Your task to perform on an android device: Go to notification settings Image 0: 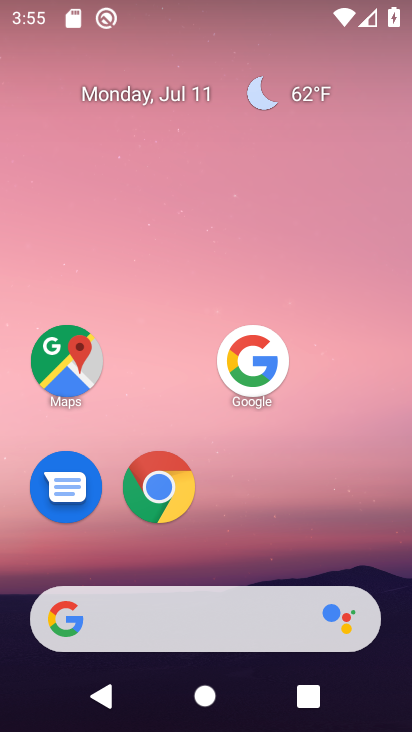
Step 0: drag from (164, 612) to (284, 80)
Your task to perform on an android device: Go to notification settings Image 1: 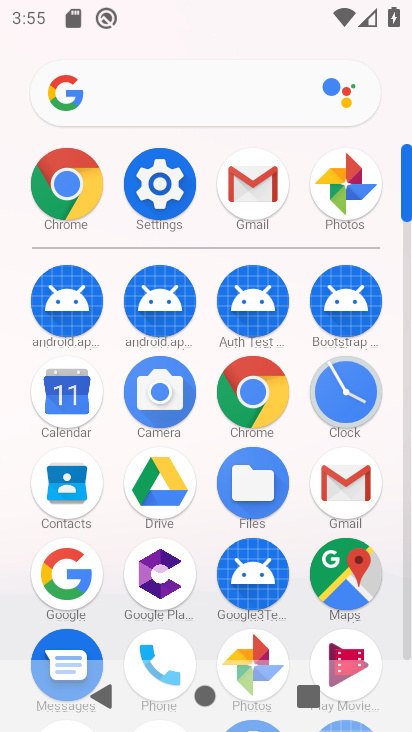
Step 1: click (162, 179)
Your task to perform on an android device: Go to notification settings Image 2: 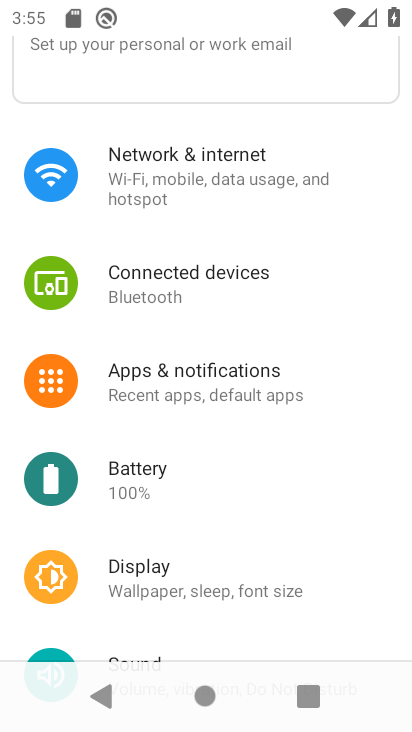
Step 2: click (183, 379)
Your task to perform on an android device: Go to notification settings Image 3: 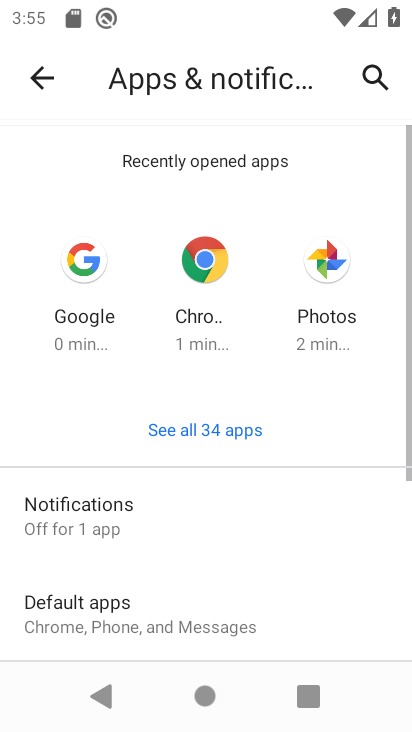
Step 3: click (94, 510)
Your task to perform on an android device: Go to notification settings Image 4: 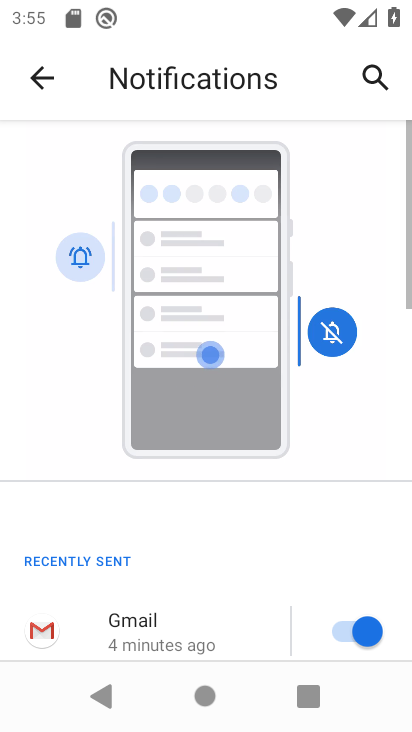
Step 4: task complete